Your task to perform on an android device: toggle notification dots Image 0: 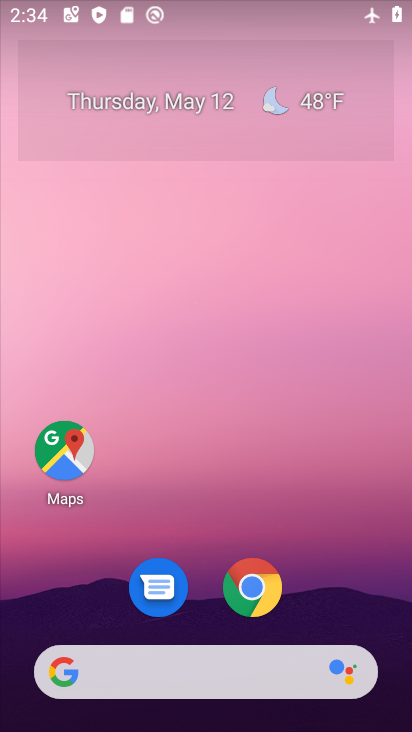
Step 0: drag from (215, 698) to (201, 264)
Your task to perform on an android device: toggle notification dots Image 1: 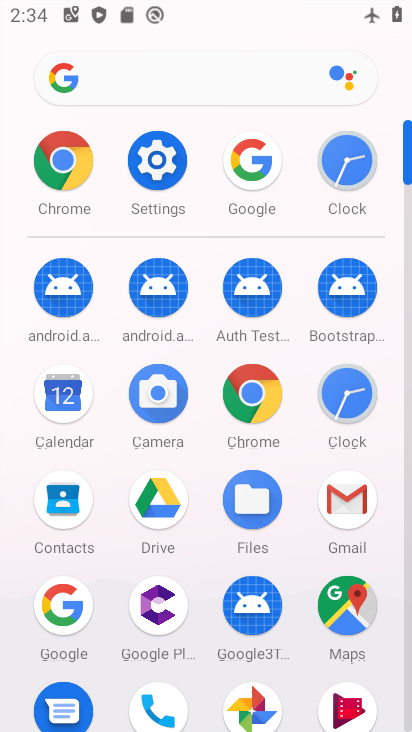
Step 1: click (167, 174)
Your task to perform on an android device: toggle notification dots Image 2: 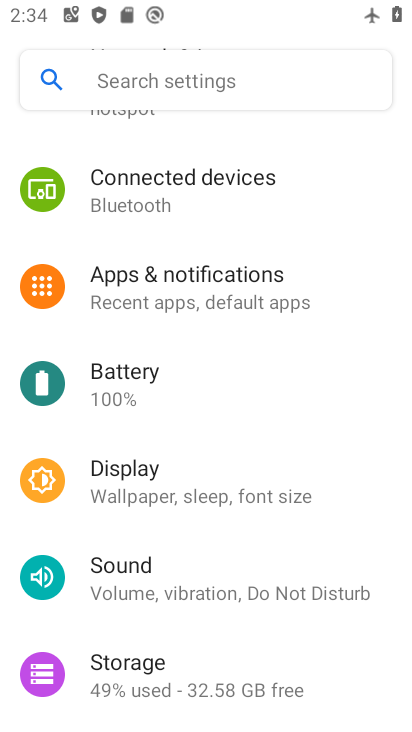
Step 2: click (153, 298)
Your task to perform on an android device: toggle notification dots Image 3: 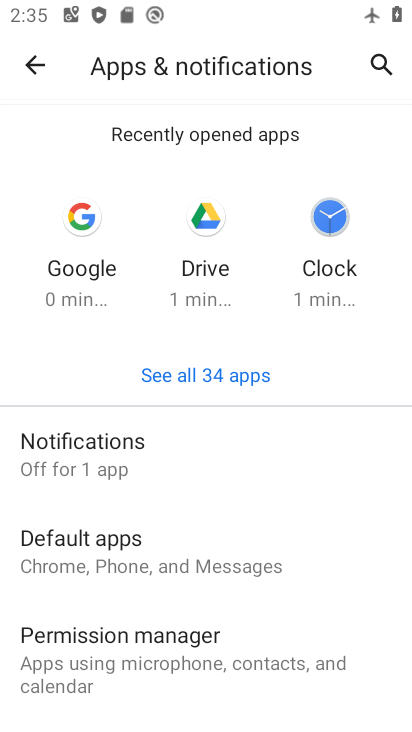
Step 3: click (209, 450)
Your task to perform on an android device: toggle notification dots Image 4: 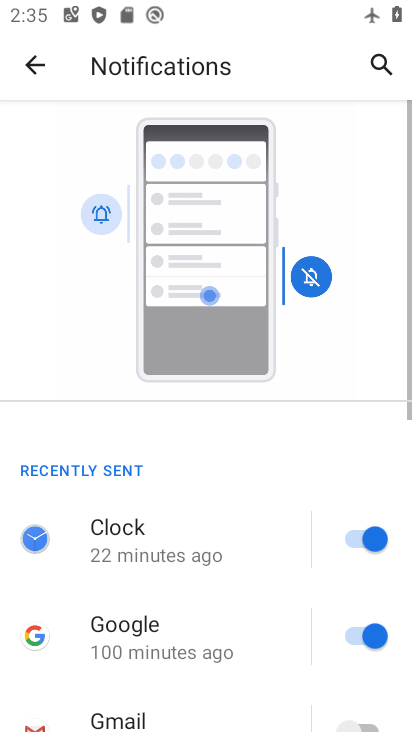
Step 4: drag from (211, 627) to (252, 259)
Your task to perform on an android device: toggle notification dots Image 5: 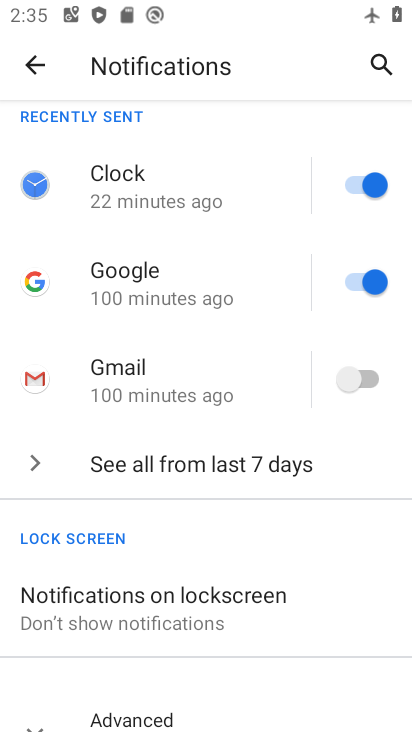
Step 5: drag from (225, 565) to (269, 54)
Your task to perform on an android device: toggle notification dots Image 6: 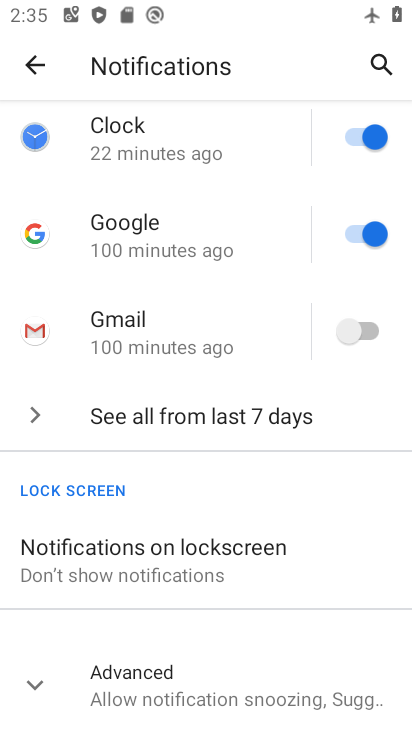
Step 6: click (177, 692)
Your task to perform on an android device: toggle notification dots Image 7: 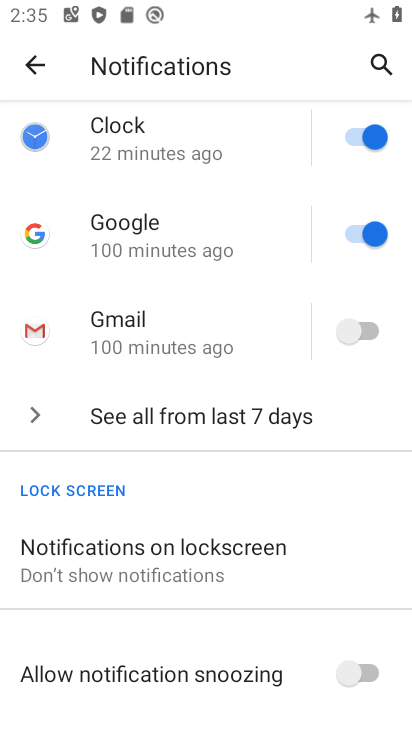
Step 7: drag from (156, 669) to (247, 6)
Your task to perform on an android device: toggle notification dots Image 8: 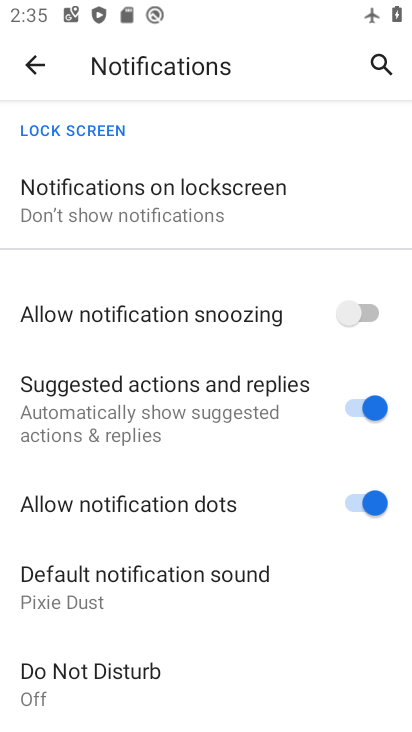
Step 8: drag from (171, 645) to (226, 183)
Your task to perform on an android device: toggle notification dots Image 9: 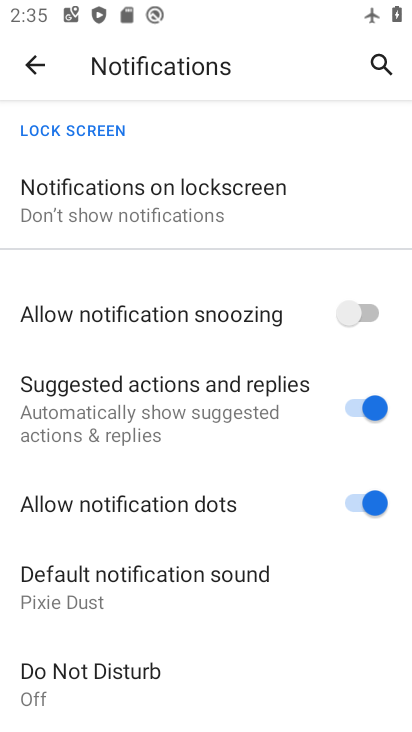
Step 9: click (227, 499)
Your task to perform on an android device: toggle notification dots Image 10: 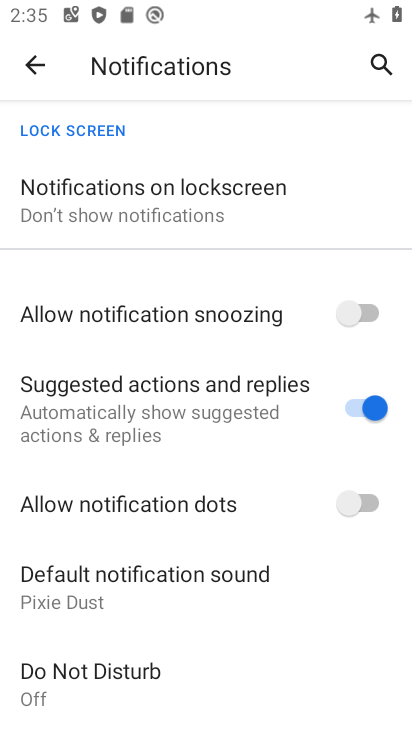
Step 10: task complete